Your task to perform on an android device: Is it going to rain today? Image 0: 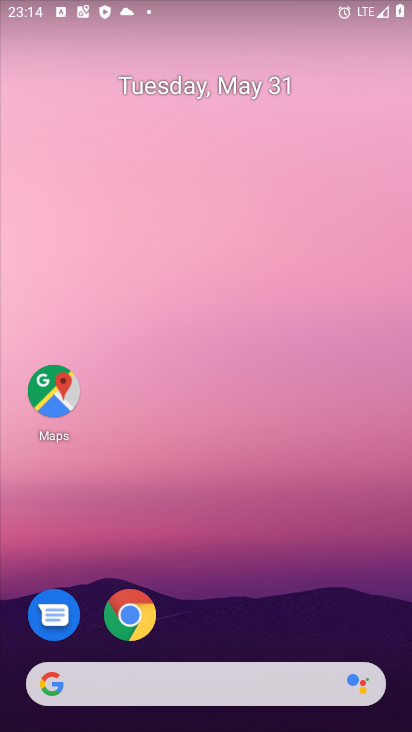
Step 0: drag from (3, 228) to (409, 252)
Your task to perform on an android device: Is it going to rain today? Image 1: 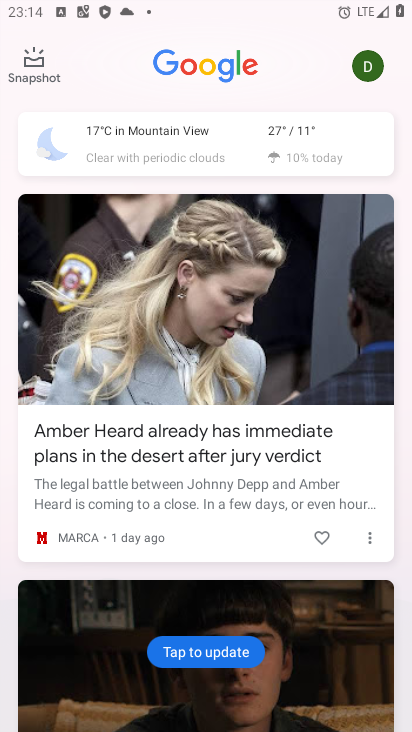
Step 1: click (290, 127)
Your task to perform on an android device: Is it going to rain today? Image 2: 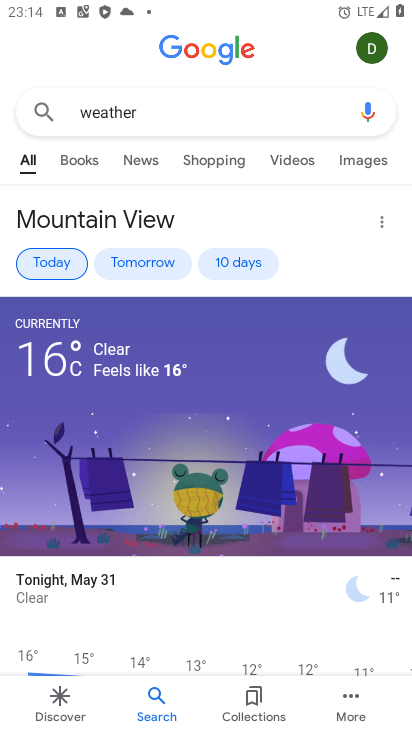
Step 2: task complete